Your task to perform on an android device: What's the weather? Image 0: 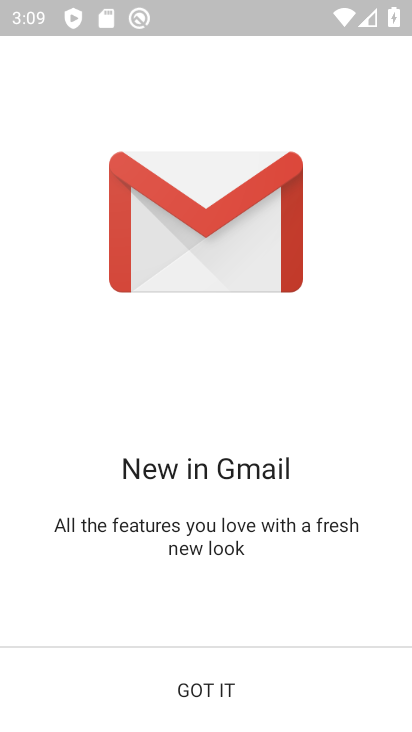
Step 0: press home button
Your task to perform on an android device: What's the weather? Image 1: 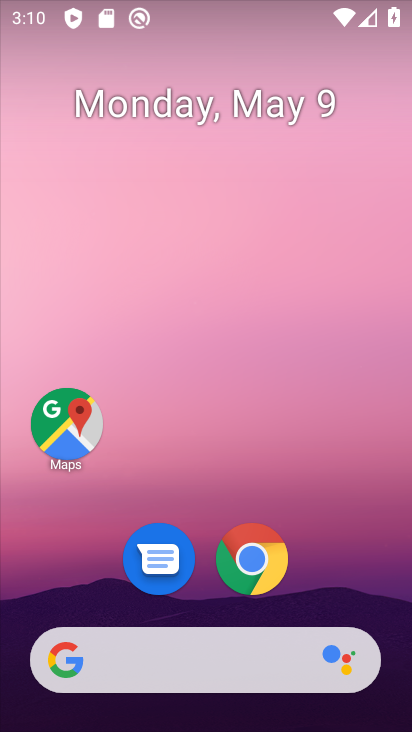
Step 1: drag from (215, 728) to (207, 178)
Your task to perform on an android device: What's the weather? Image 2: 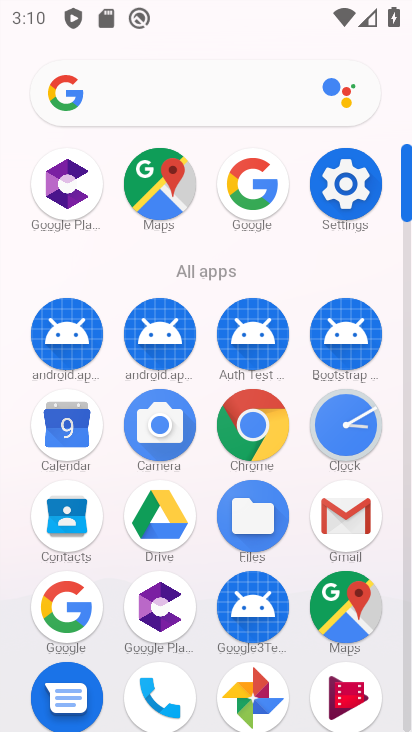
Step 2: click (73, 600)
Your task to perform on an android device: What's the weather? Image 3: 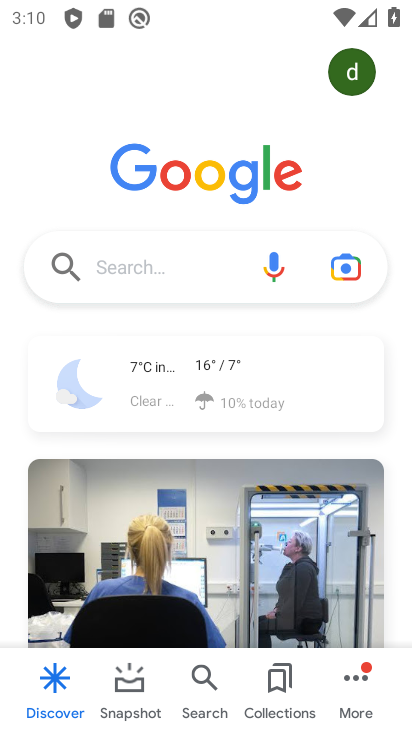
Step 3: click (79, 387)
Your task to perform on an android device: What's the weather? Image 4: 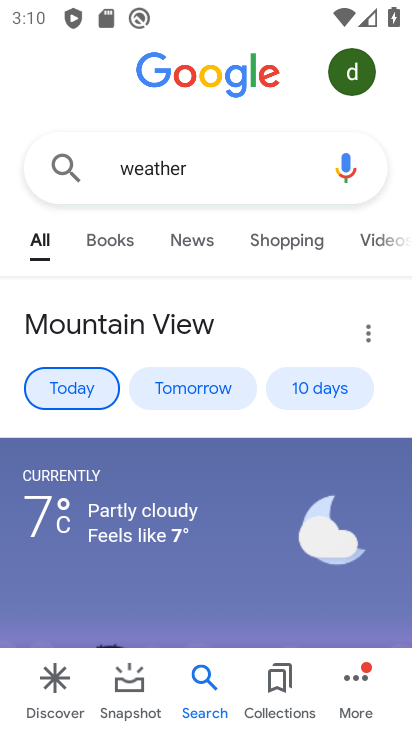
Step 4: task complete